Your task to perform on an android device: Open calendar and show me the third week of next month Image 0: 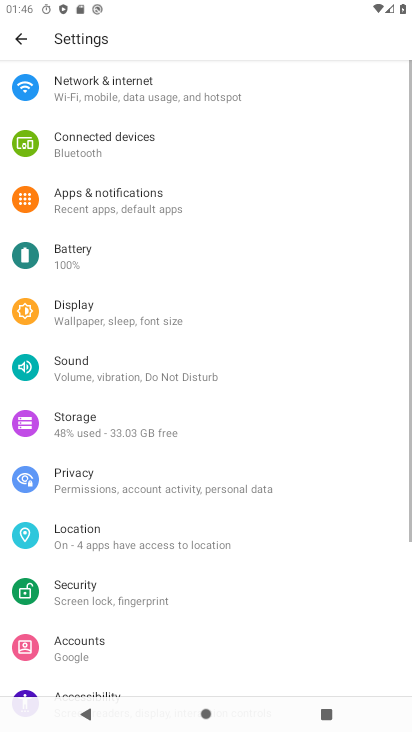
Step 0: press home button
Your task to perform on an android device: Open calendar and show me the third week of next month Image 1: 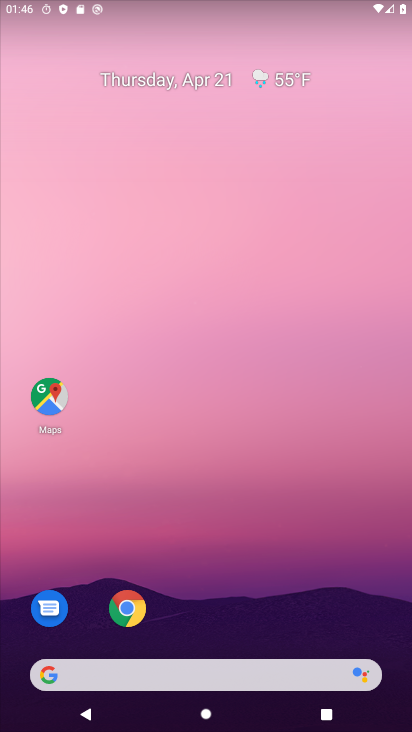
Step 1: drag from (233, 538) to (229, 243)
Your task to perform on an android device: Open calendar and show me the third week of next month Image 2: 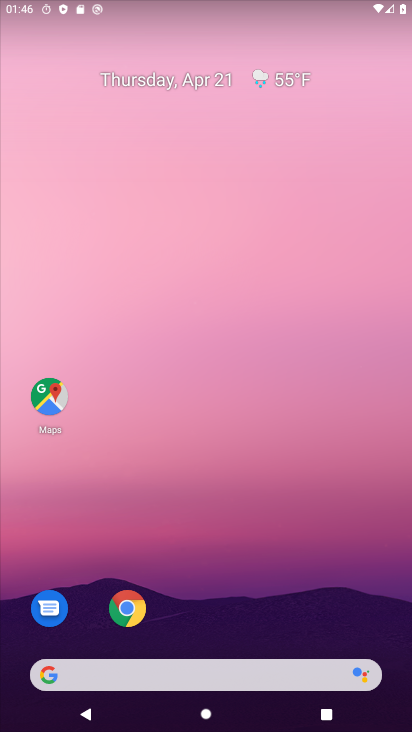
Step 2: drag from (219, 533) to (182, 296)
Your task to perform on an android device: Open calendar and show me the third week of next month Image 3: 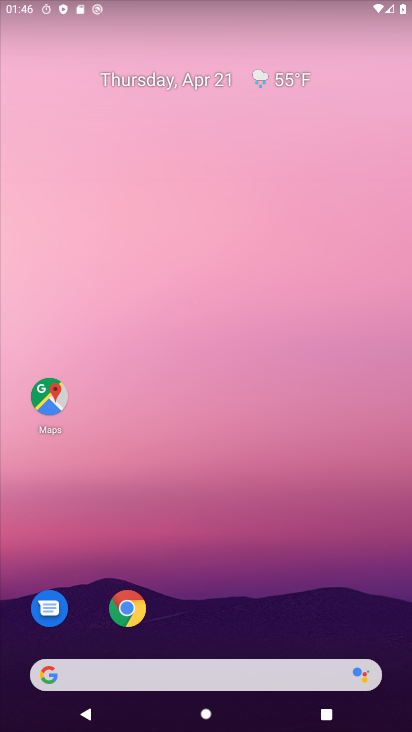
Step 3: drag from (242, 537) to (177, 64)
Your task to perform on an android device: Open calendar and show me the third week of next month Image 4: 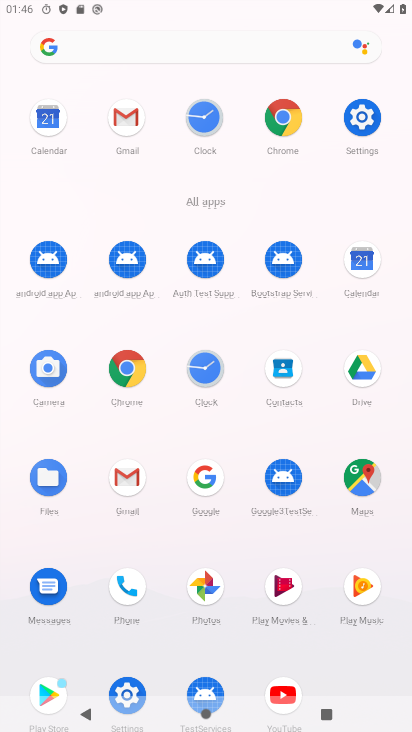
Step 4: click (44, 115)
Your task to perform on an android device: Open calendar and show me the third week of next month Image 5: 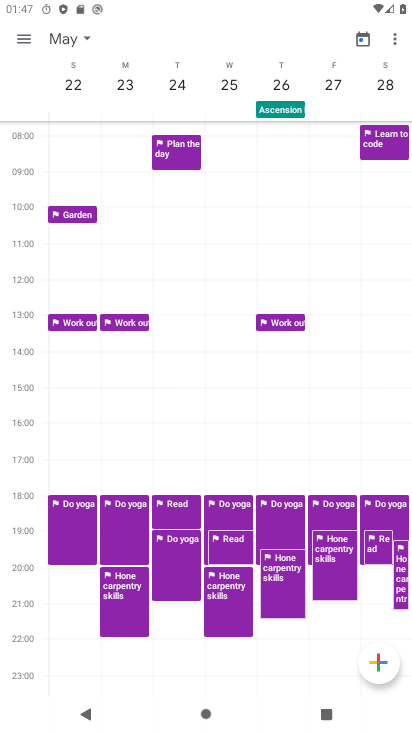
Step 5: drag from (74, 84) to (405, 79)
Your task to perform on an android device: Open calendar and show me the third week of next month Image 6: 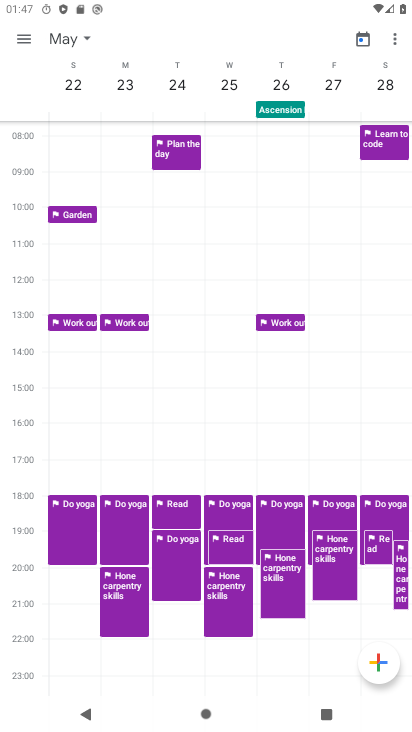
Step 6: drag from (95, 83) to (405, 97)
Your task to perform on an android device: Open calendar and show me the third week of next month Image 7: 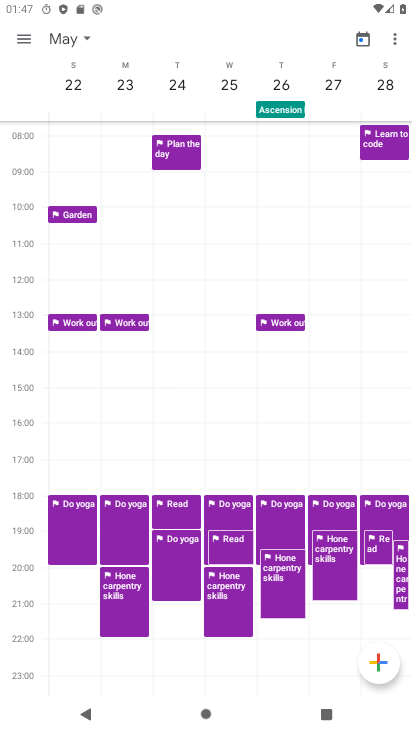
Step 7: drag from (96, 84) to (377, 112)
Your task to perform on an android device: Open calendar and show me the third week of next month Image 8: 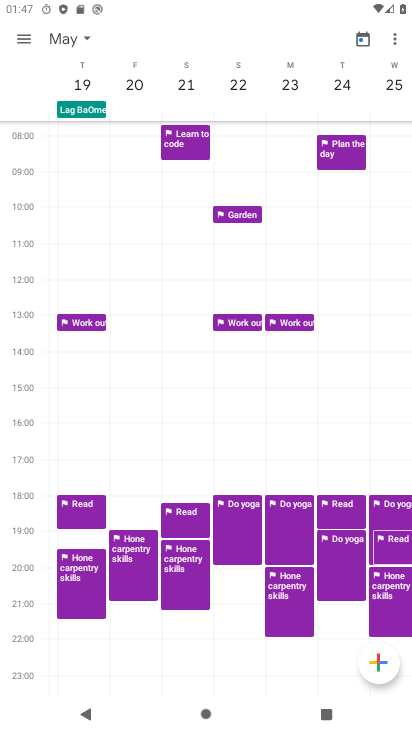
Step 8: drag from (145, 78) to (384, 104)
Your task to perform on an android device: Open calendar and show me the third week of next month Image 9: 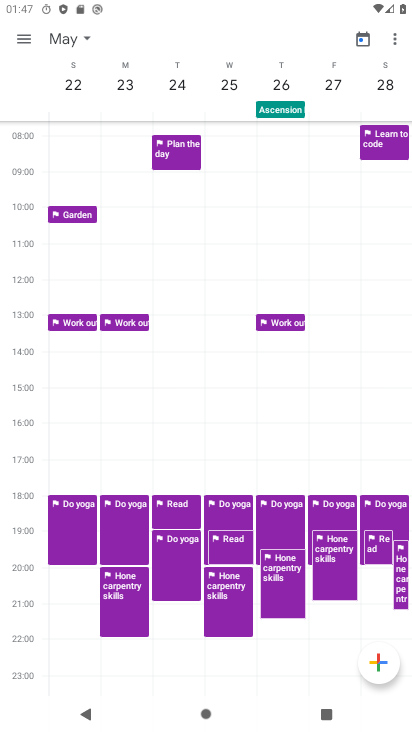
Step 9: click (69, 32)
Your task to perform on an android device: Open calendar and show me the third week of next month Image 10: 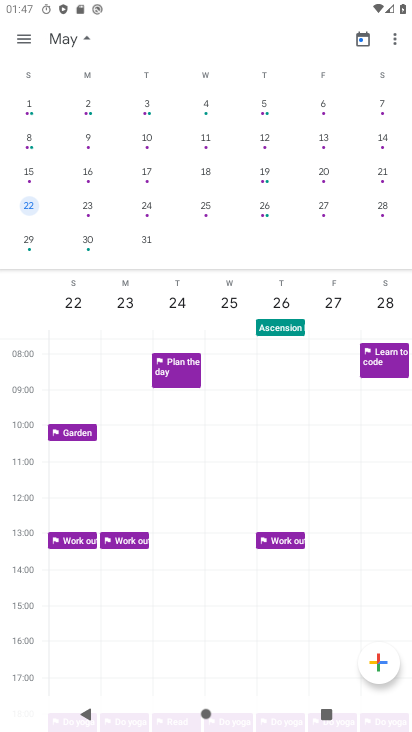
Step 10: click (26, 170)
Your task to perform on an android device: Open calendar and show me the third week of next month Image 11: 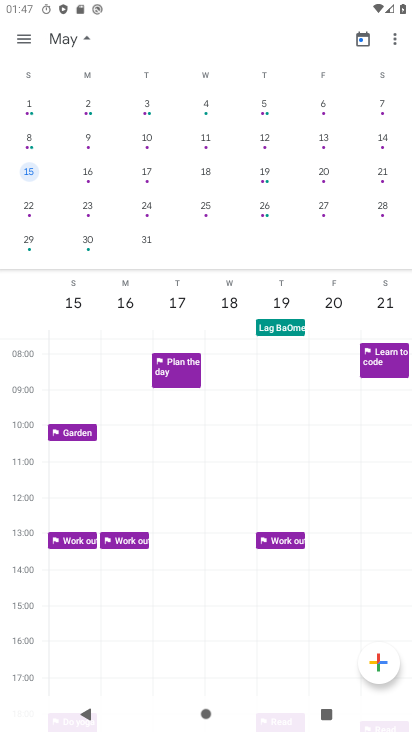
Step 11: click (71, 39)
Your task to perform on an android device: Open calendar and show me the third week of next month Image 12: 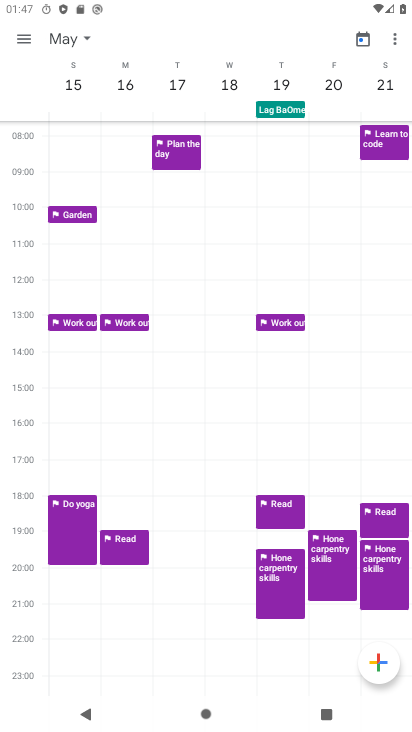
Step 12: task complete